Your task to perform on an android device: find photos in the google photos app Image 0: 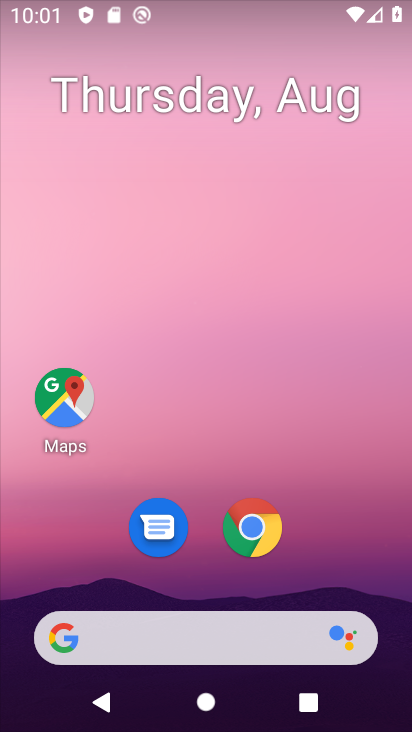
Step 0: drag from (177, 713) to (224, 271)
Your task to perform on an android device: find photos in the google photos app Image 1: 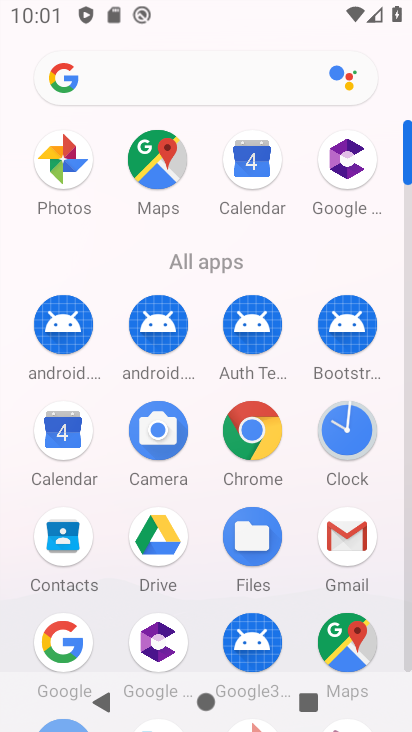
Step 1: click (73, 176)
Your task to perform on an android device: find photos in the google photos app Image 2: 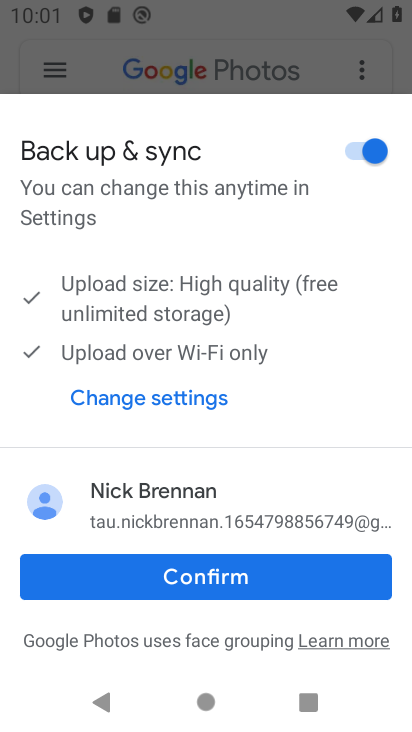
Step 2: click (194, 573)
Your task to perform on an android device: find photos in the google photos app Image 3: 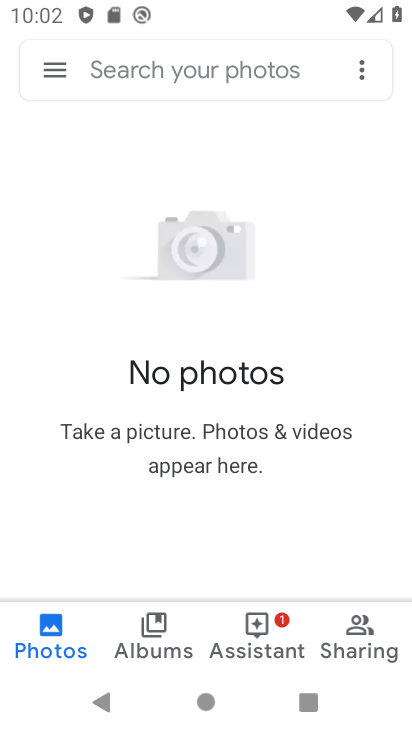
Step 3: task complete